Your task to perform on an android device: turn on data saver in the chrome app Image 0: 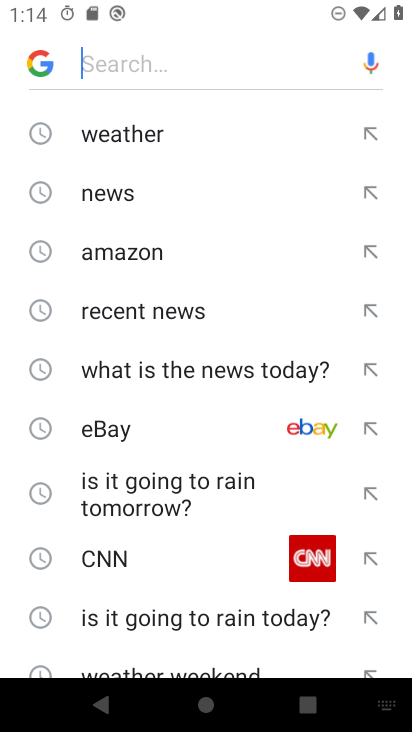
Step 0: press home button
Your task to perform on an android device: turn on data saver in the chrome app Image 1: 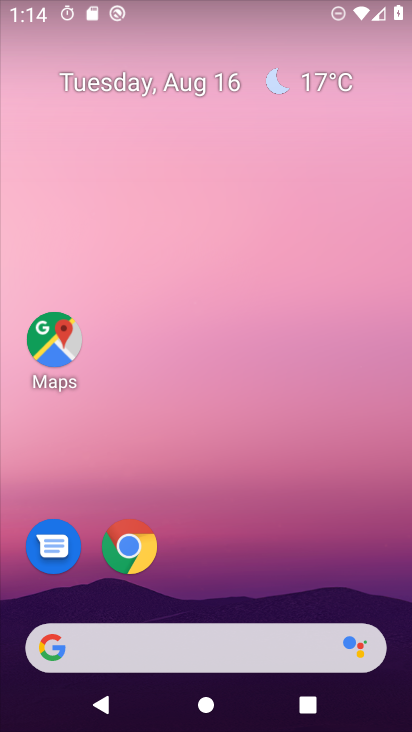
Step 1: drag from (205, 612) to (195, 77)
Your task to perform on an android device: turn on data saver in the chrome app Image 2: 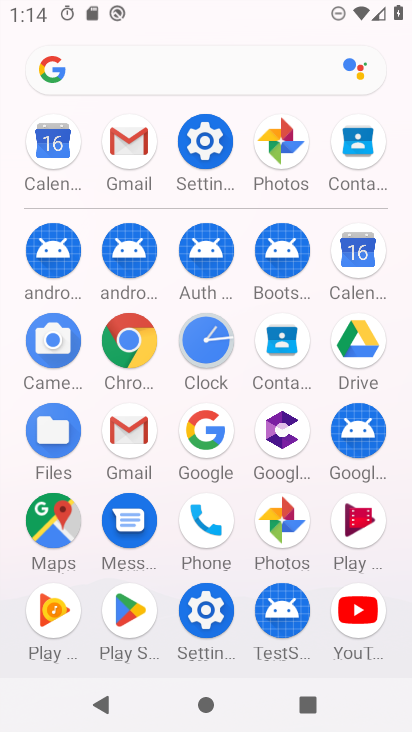
Step 2: click (132, 334)
Your task to perform on an android device: turn on data saver in the chrome app Image 3: 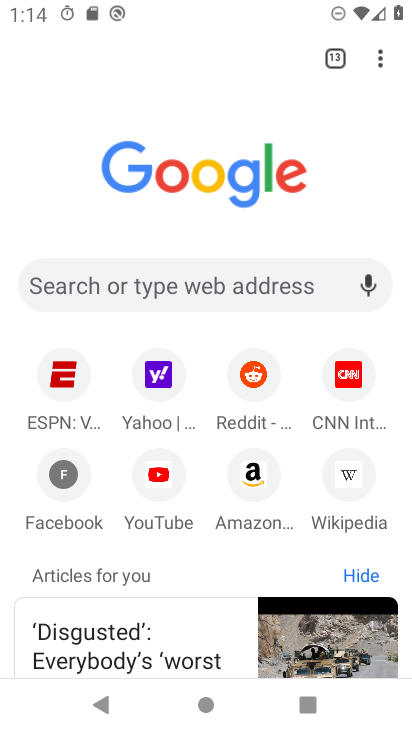
Step 3: drag from (380, 64) to (184, 486)
Your task to perform on an android device: turn on data saver in the chrome app Image 4: 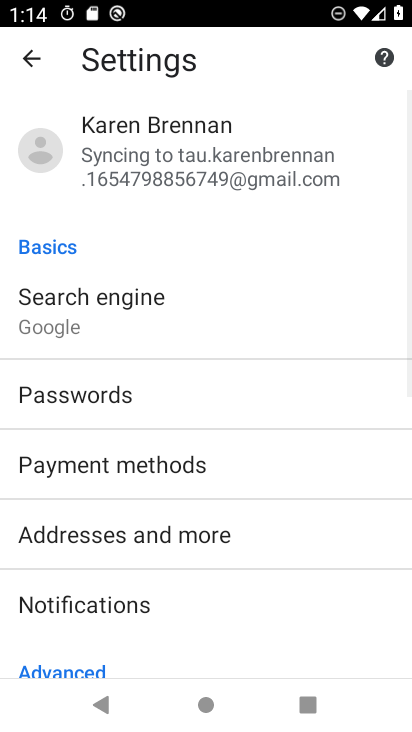
Step 4: drag from (174, 636) to (215, 265)
Your task to perform on an android device: turn on data saver in the chrome app Image 5: 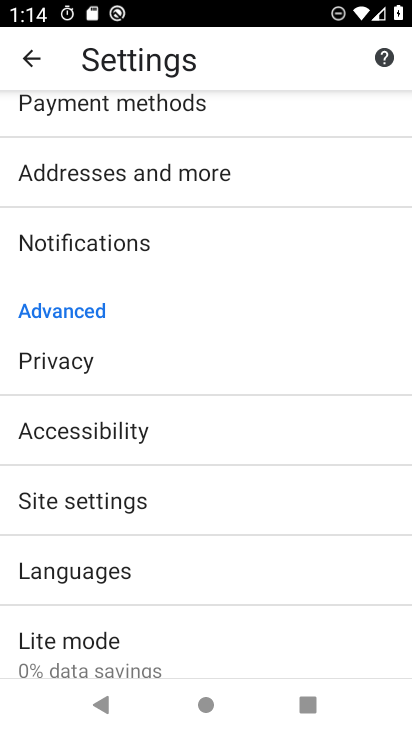
Step 5: click (110, 646)
Your task to perform on an android device: turn on data saver in the chrome app Image 6: 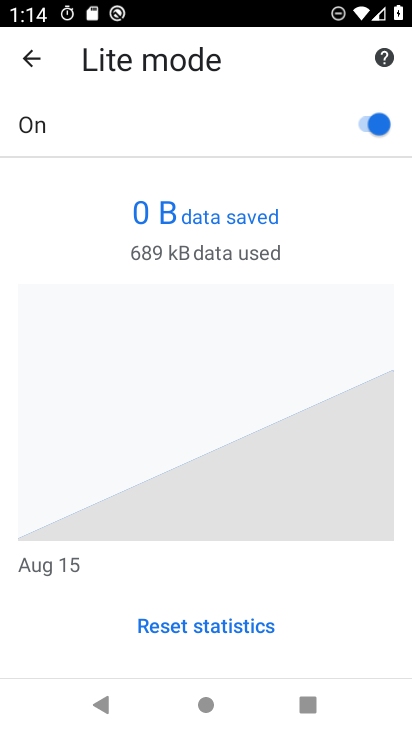
Step 6: task complete